Your task to perform on an android device: change the clock display to show seconds Image 0: 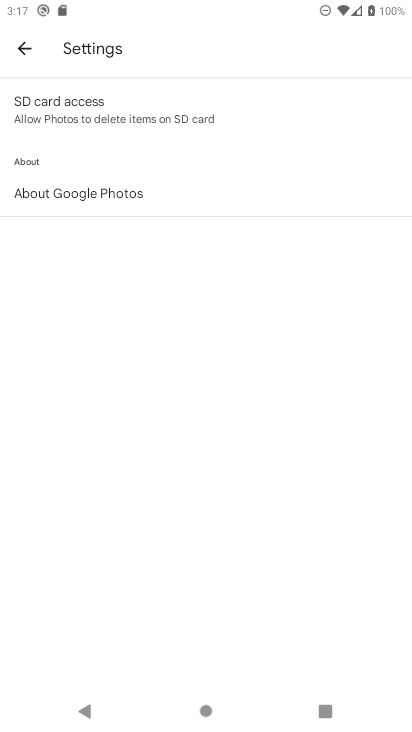
Step 0: click (20, 46)
Your task to perform on an android device: change the clock display to show seconds Image 1: 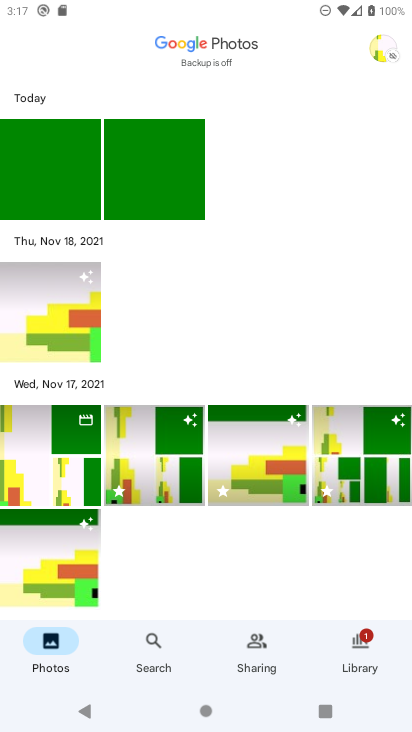
Step 1: press back button
Your task to perform on an android device: change the clock display to show seconds Image 2: 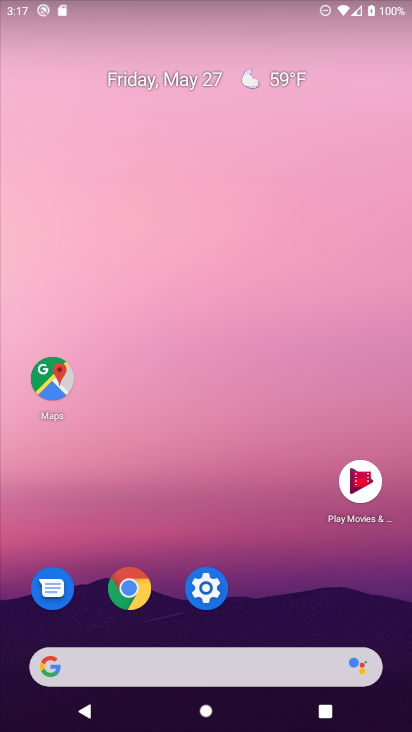
Step 2: drag from (265, 317) to (171, 7)
Your task to perform on an android device: change the clock display to show seconds Image 3: 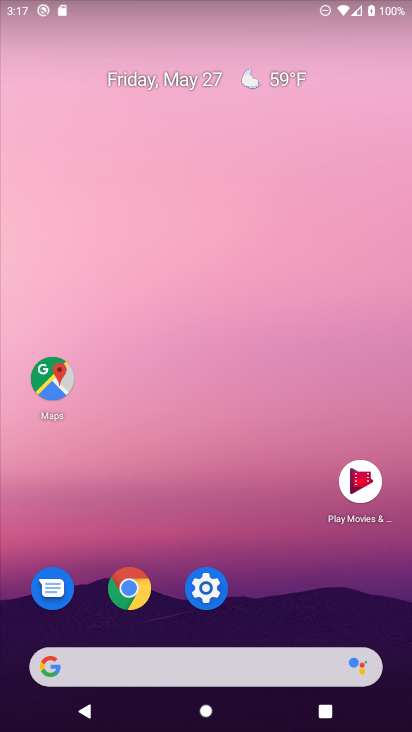
Step 3: drag from (258, 582) to (132, 101)
Your task to perform on an android device: change the clock display to show seconds Image 4: 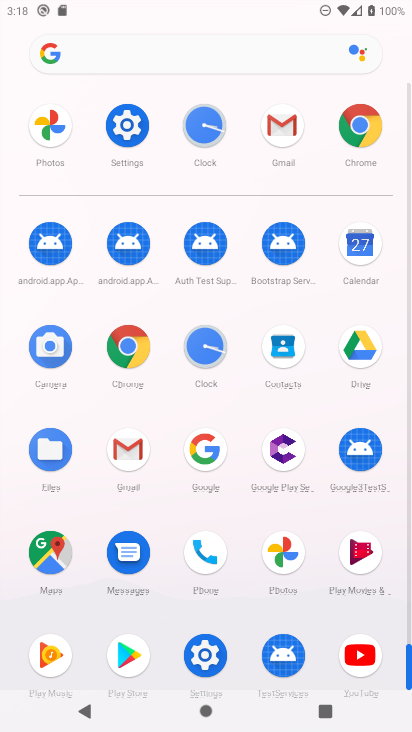
Step 4: click (201, 355)
Your task to perform on an android device: change the clock display to show seconds Image 5: 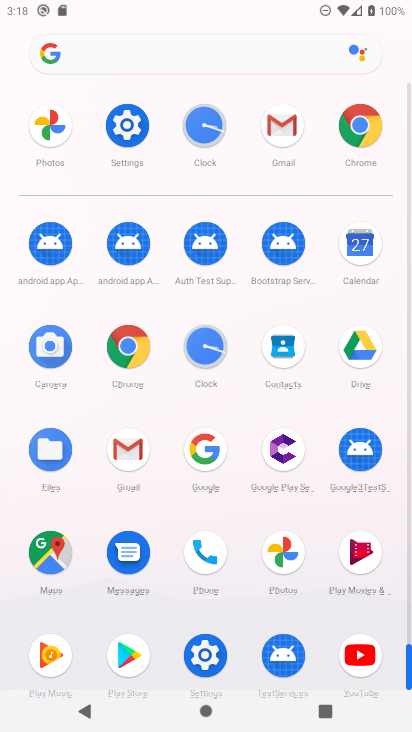
Step 5: click (201, 355)
Your task to perform on an android device: change the clock display to show seconds Image 6: 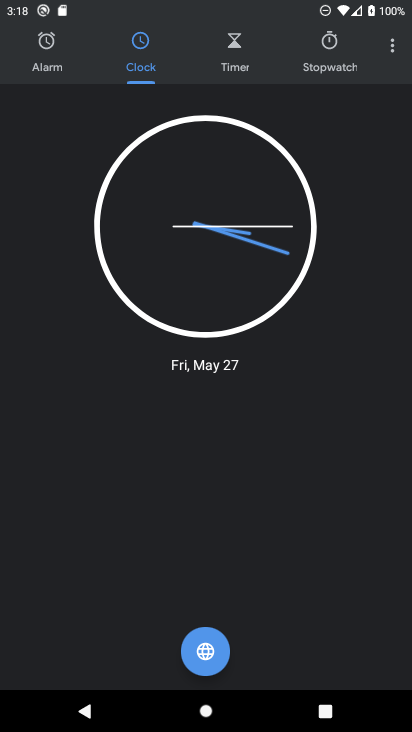
Step 6: click (202, 356)
Your task to perform on an android device: change the clock display to show seconds Image 7: 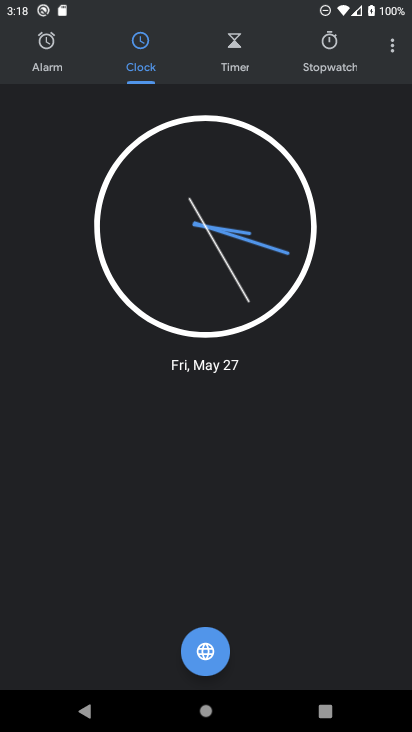
Step 7: click (395, 49)
Your task to perform on an android device: change the clock display to show seconds Image 8: 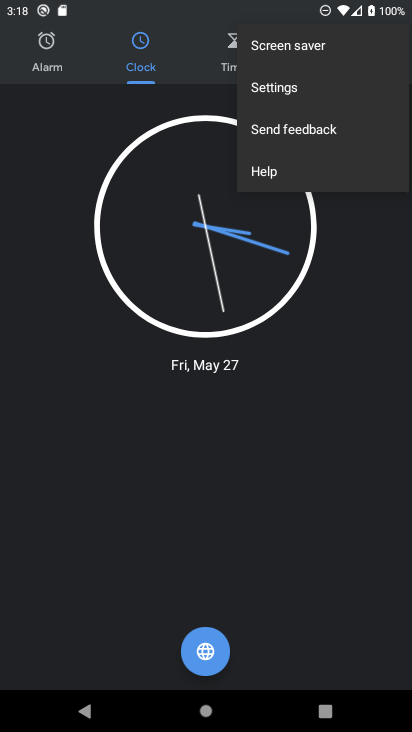
Step 8: click (287, 84)
Your task to perform on an android device: change the clock display to show seconds Image 9: 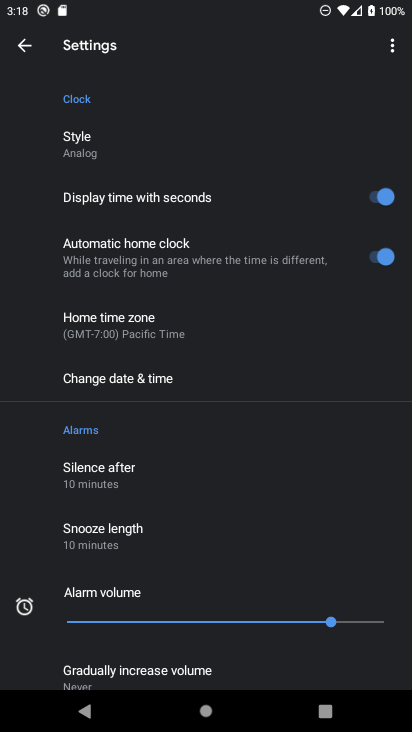
Step 9: task complete